Your task to perform on an android device: open app "Google Drive" (install if not already installed) Image 0: 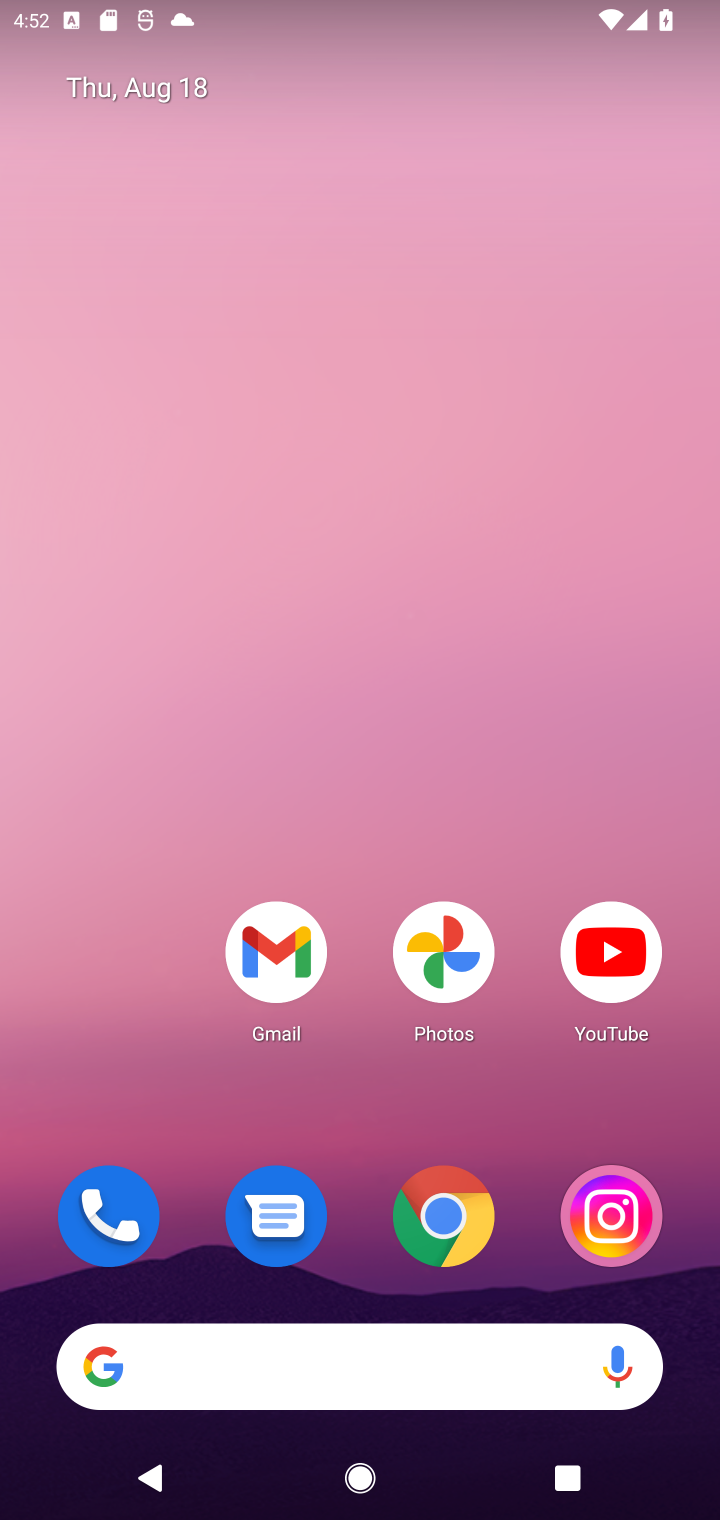
Step 0: drag from (356, 1103) to (377, 257)
Your task to perform on an android device: open app "Google Drive" (install if not already installed) Image 1: 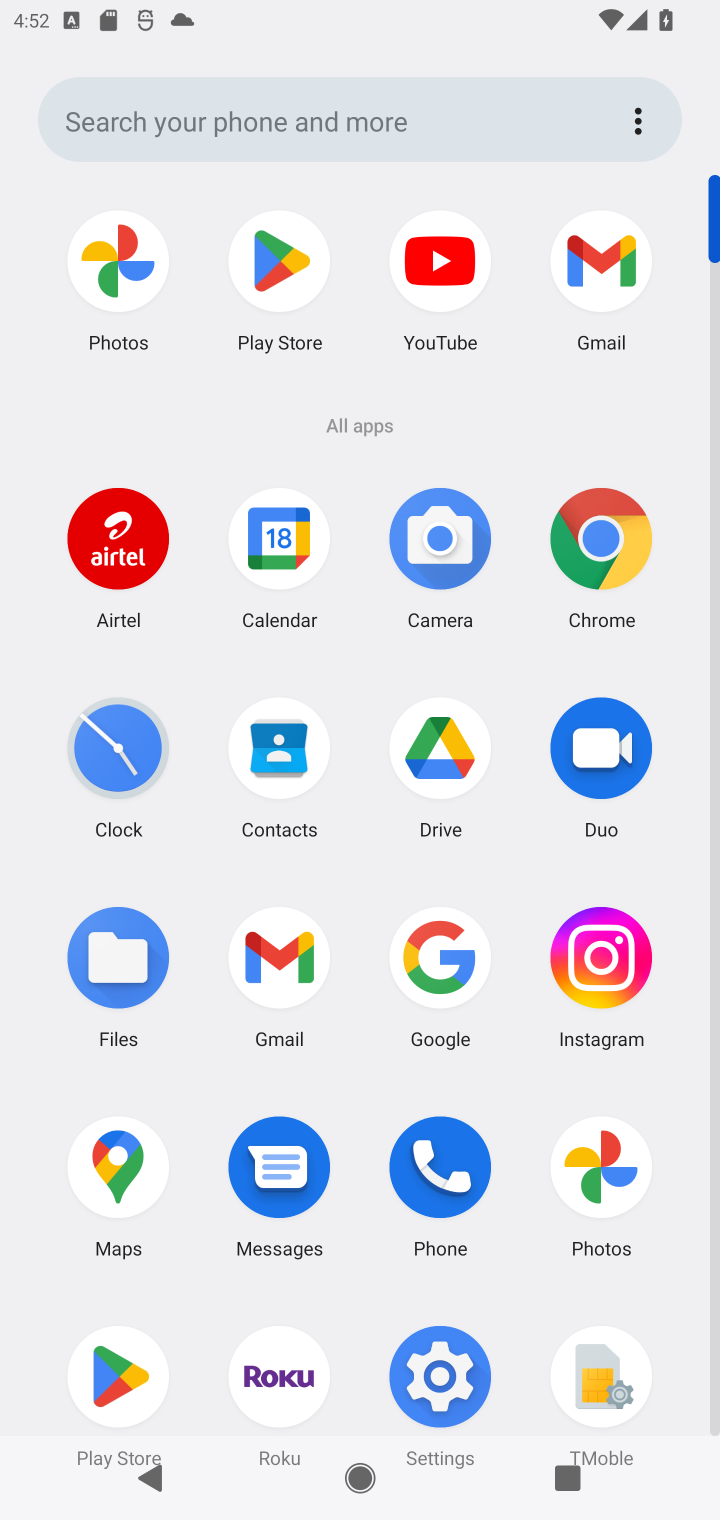
Step 1: click (314, 279)
Your task to perform on an android device: open app "Google Drive" (install if not already installed) Image 2: 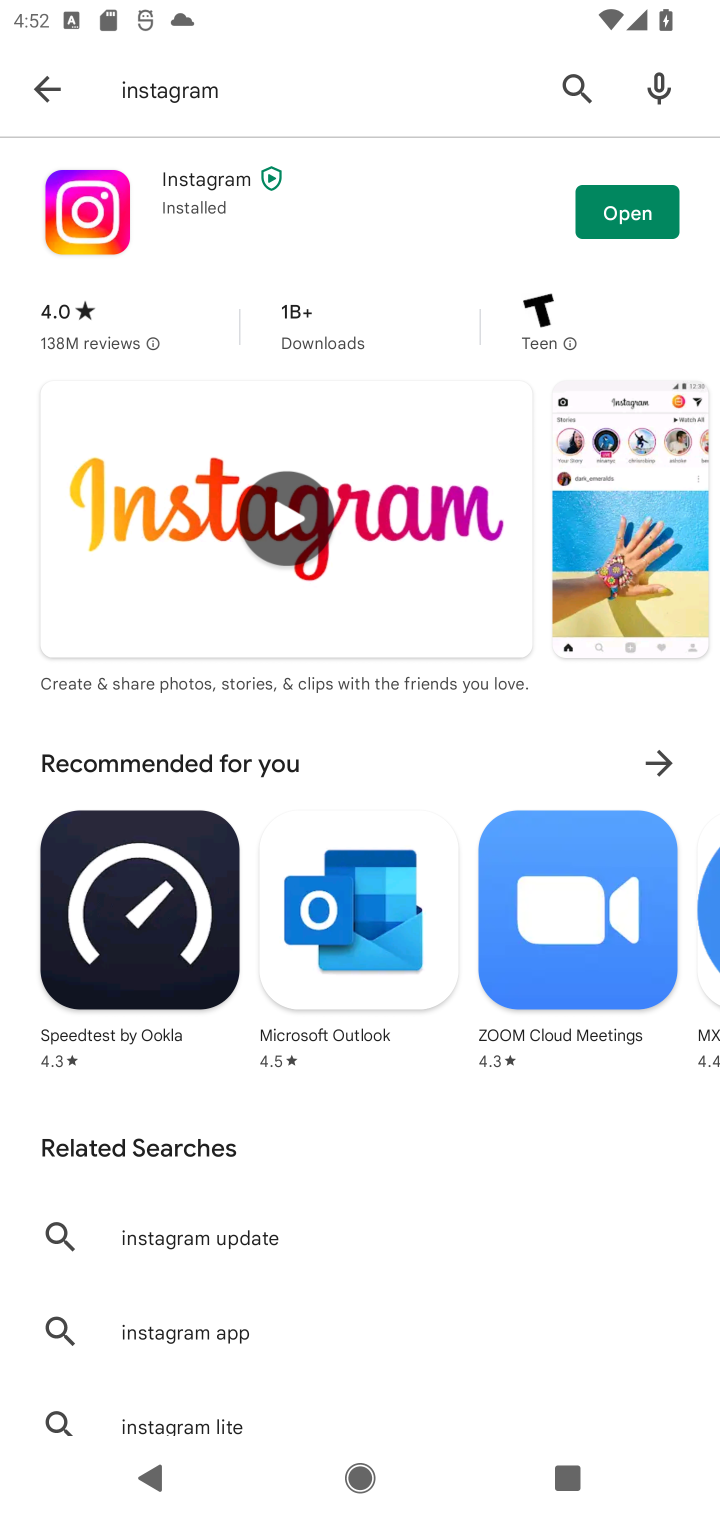
Step 2: click (571, 67)
Your task to perform on an android device: open app "Google Drive" (install if not already installed) Image 3: 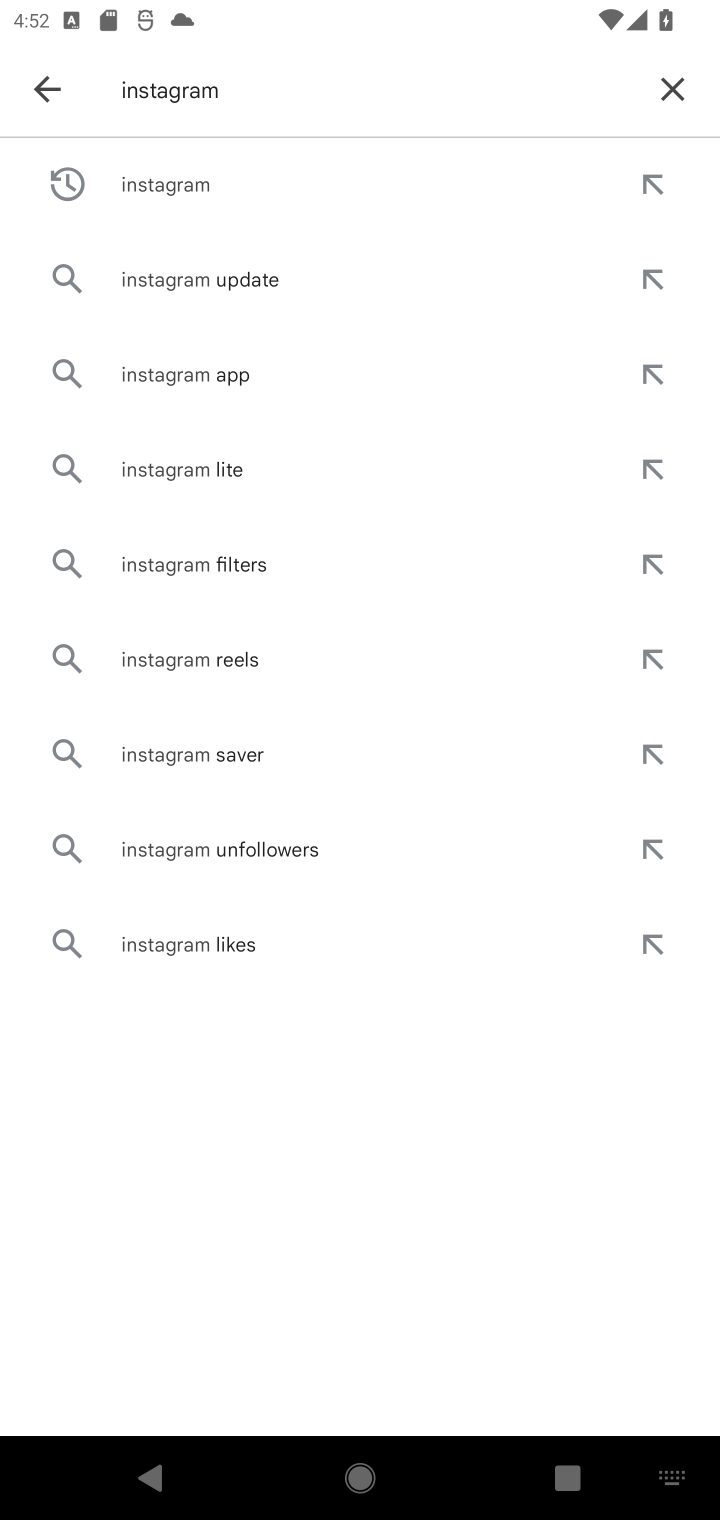
Step 3: click (662, 78)
Your task to perform on an android device: open app "Google Drive" (install if not already installed) Image 4: 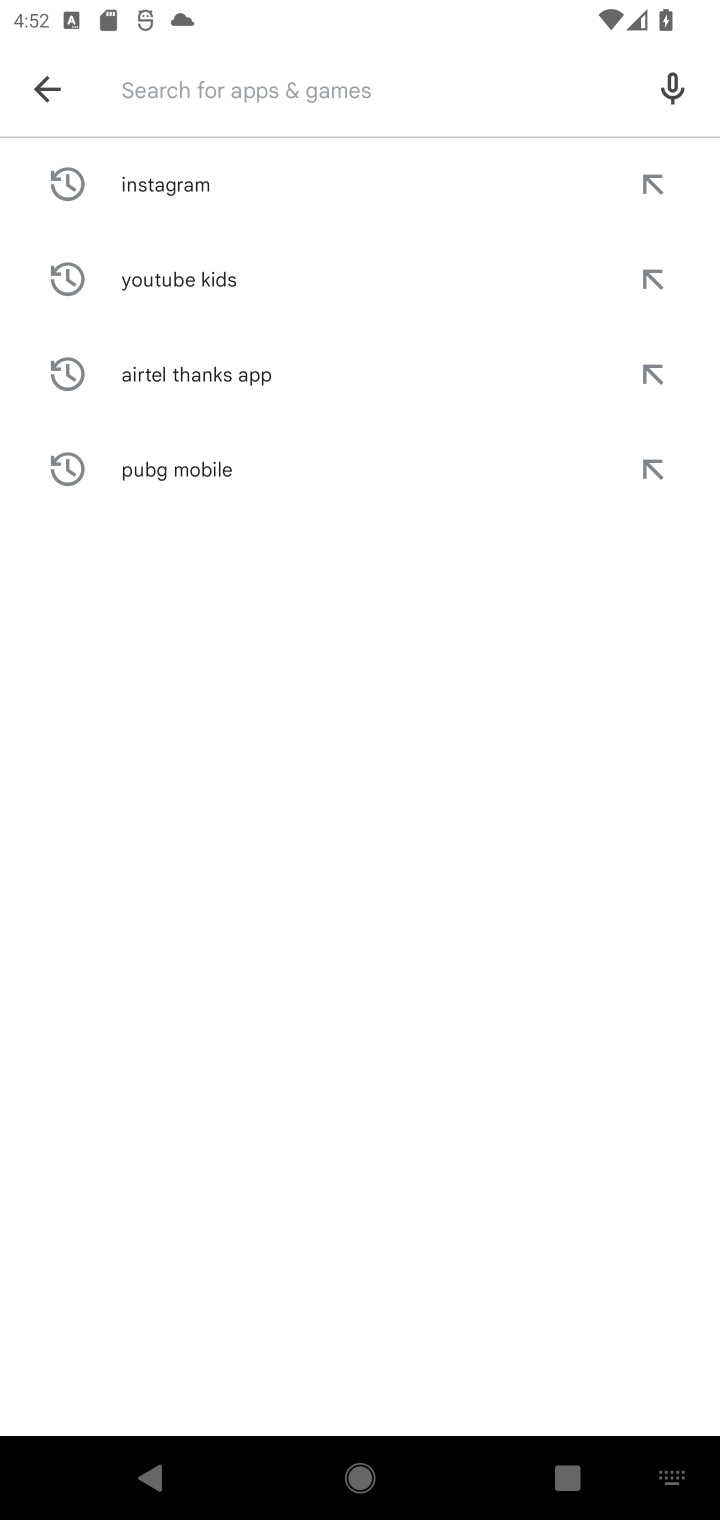
Step 4: type "Google Drive"
Your task to perform on an android device: open app "Google Drive" (install if not already installed) Image 5: 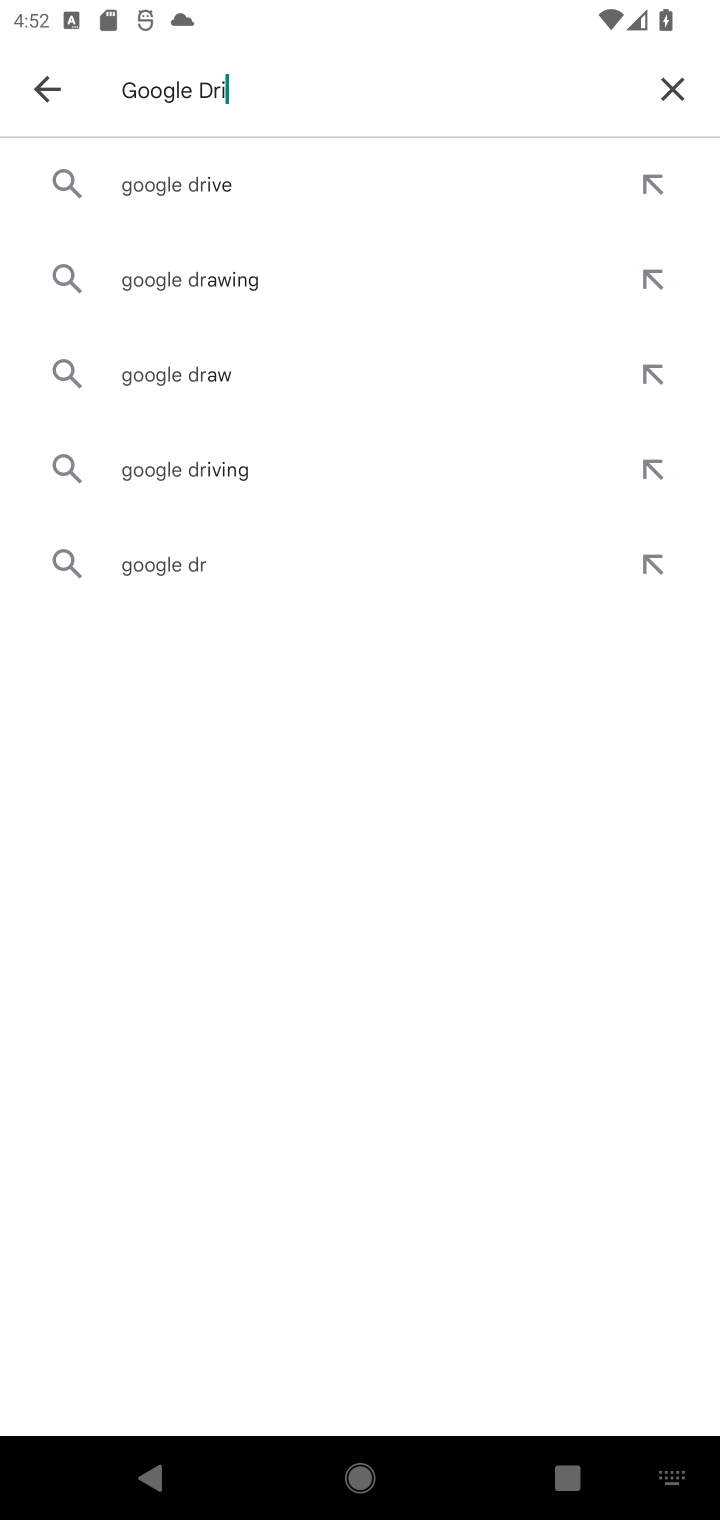
Step 5: type ""
Your task to perform on an android device: open app "Google Drive" (install if not already installed) Image 6: 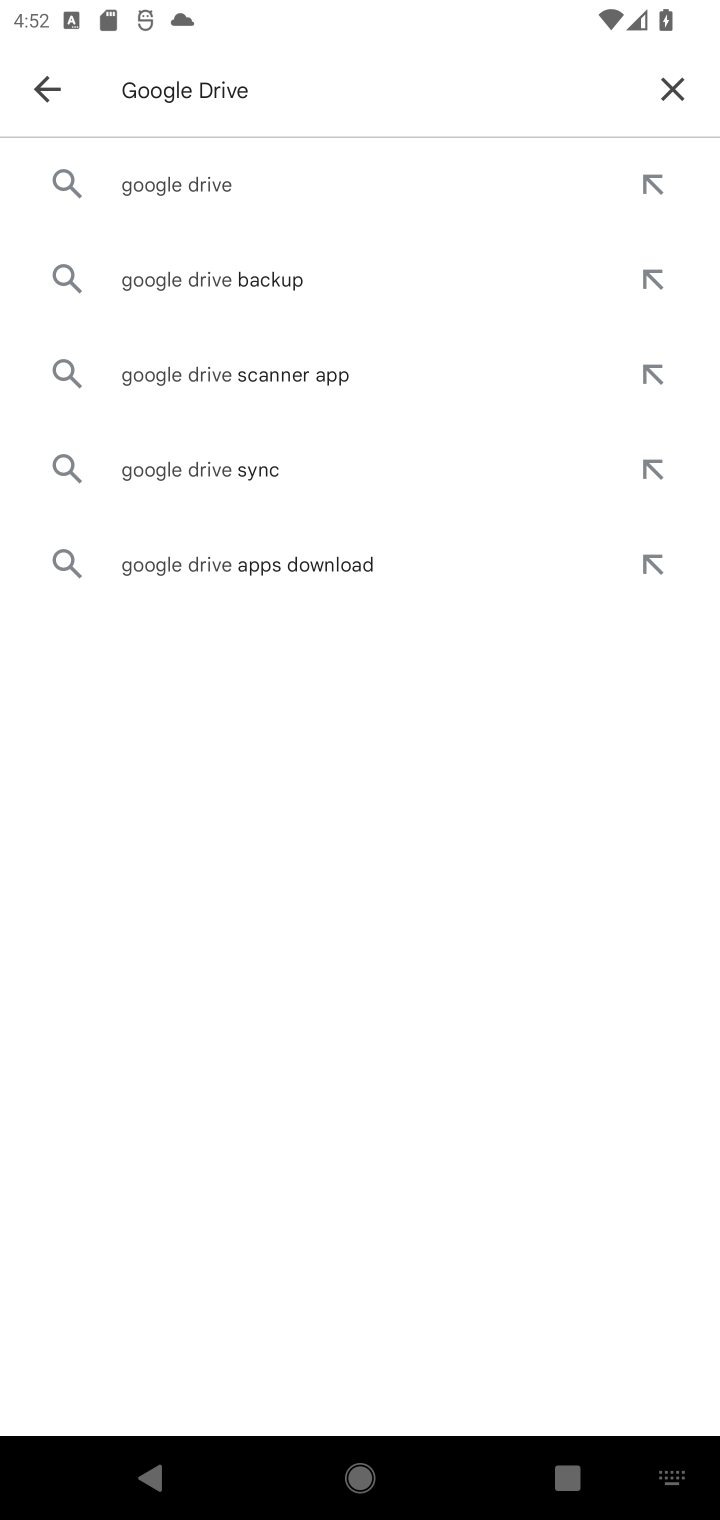
Step 6: click (254, 188)
Your task to perform on an android device: open app "Google Drive" (install if not already installed) Image 7: 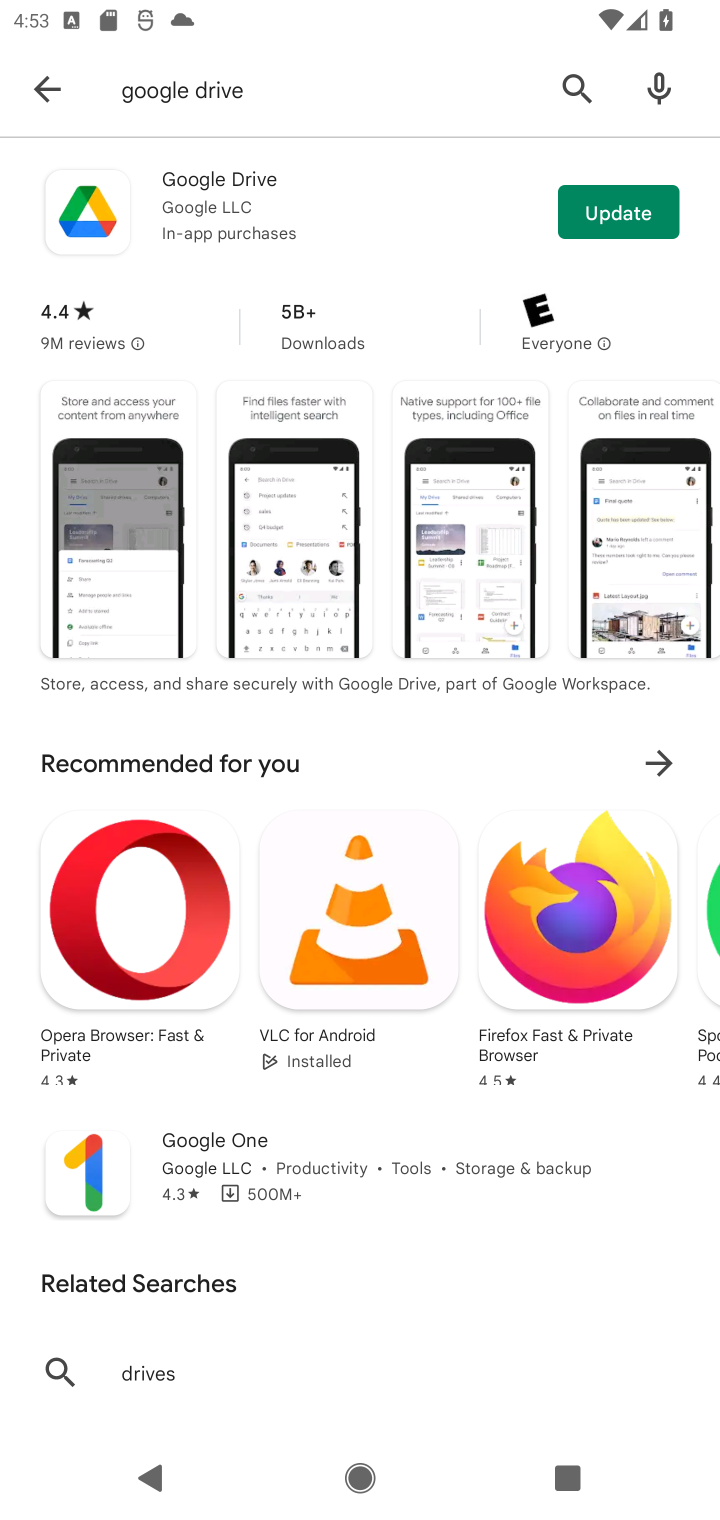
Step 7: click (307, 216)
Your task to perform on an android device: open app "Google Drive" (install if not already installed) Image 8: 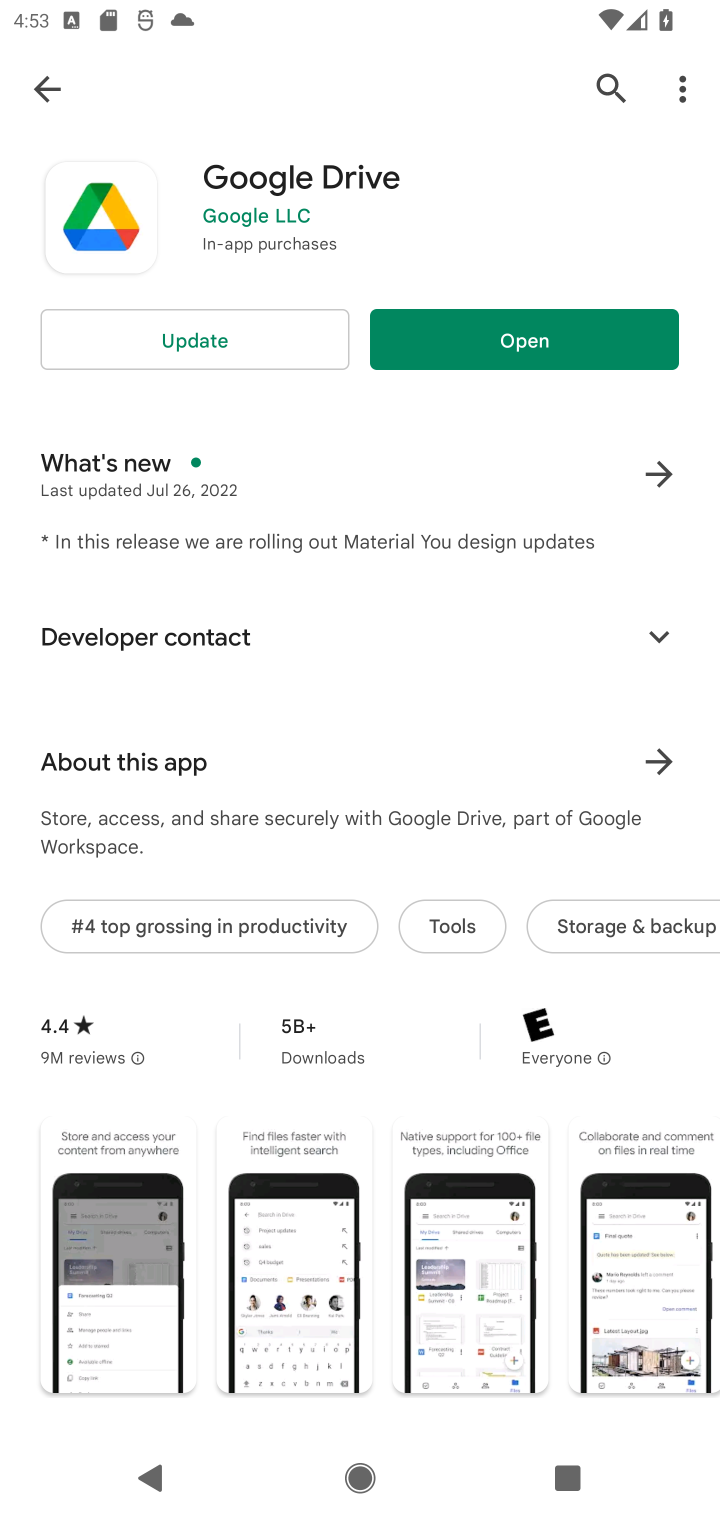
Step 8: click (547, 344)
Your task to perform on an android device: open app "Google Drive" (install if not already installed) Image 9: 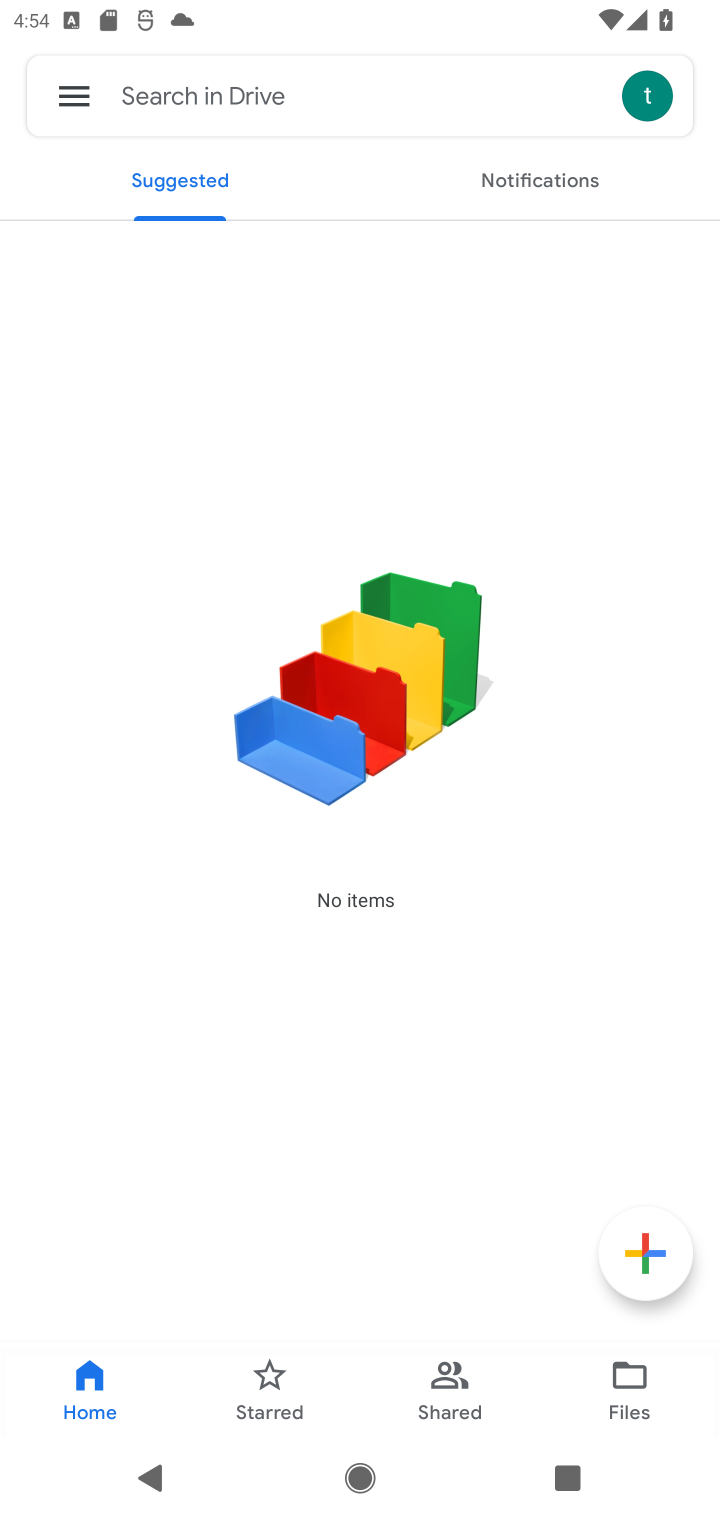
Step 9: task complete